Your task to perform on an android device: Open the calendar app, open the side menu, and click the "Day" option Image 0: 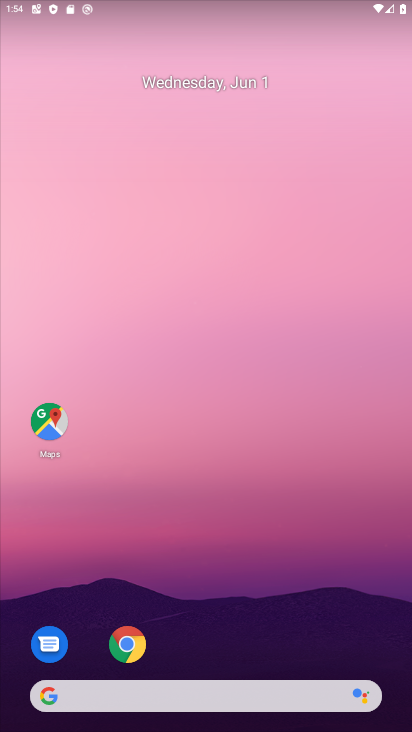
Step 0: drag from (241, 606) to (273, 234)
Your task to perform on an android device: Open the calendar app, open the side menu, and click the "Day" option Image 1: 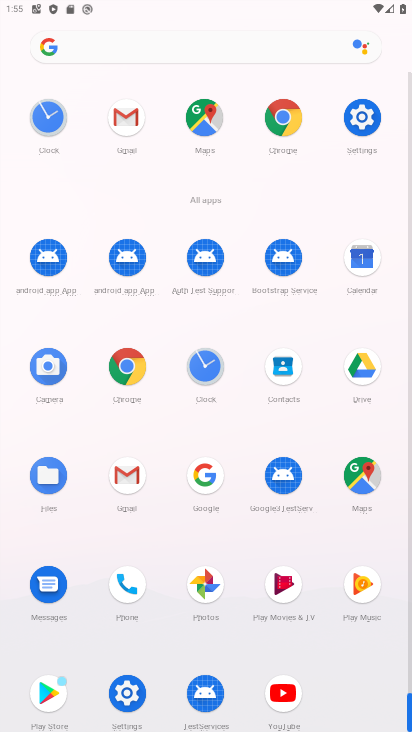
Step 1: click (356, 267)
Your task to perform on an android device: Open the calendar app, open the side menu, and click the "Day" option Image 2: 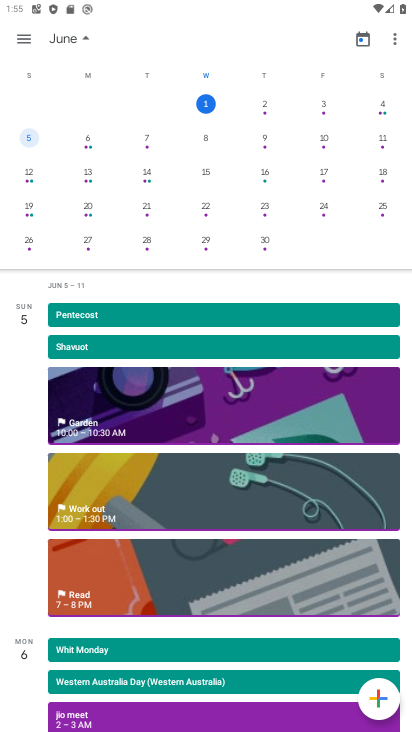
Step 2: click (26, 37)
Your task to perform on an android device: Open the calendar app, open the side menu, and click the "Day" option Image 3: 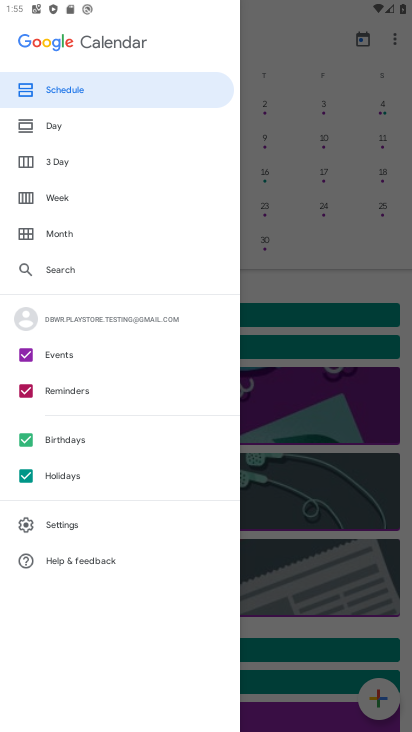
Step 3: click (63, 129)
Your task to perform on an android device: Open the calendar app, open the side menu, and click the "Day" option Image 4: 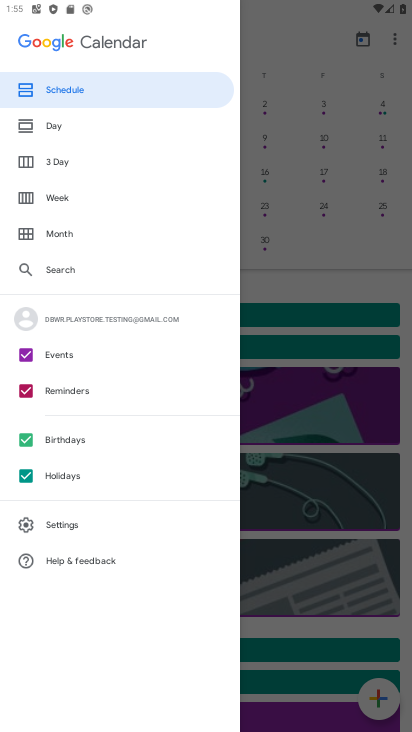
Step 4: click (61, 127)
Your task to perform on an android device: Open the calendar app, open the side menu, and click the "Day" option Image 5: 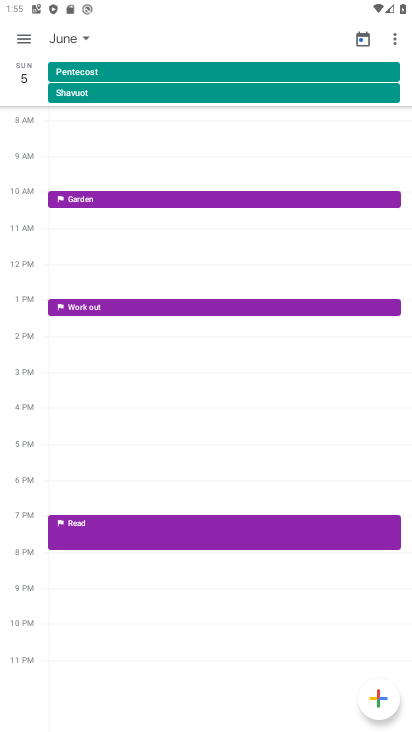
Step 5: task complete